Your task to perform on an android device: toggle improve location accuracy Image 0: 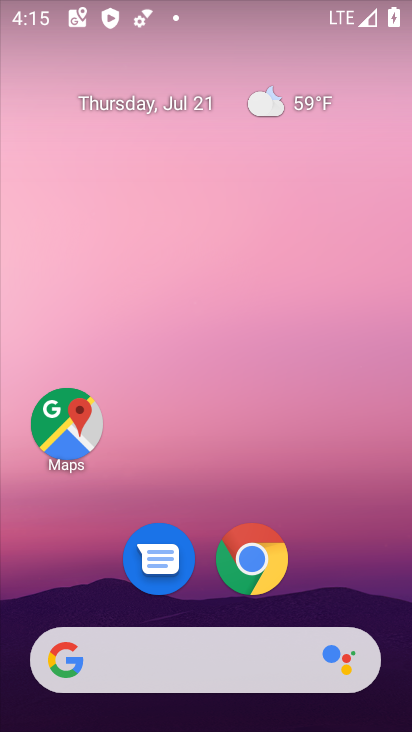
Step 0: drag from (103, 581) to (257, 13)
Your task to perform on an android device: toggle improve location accuracy Image 1: 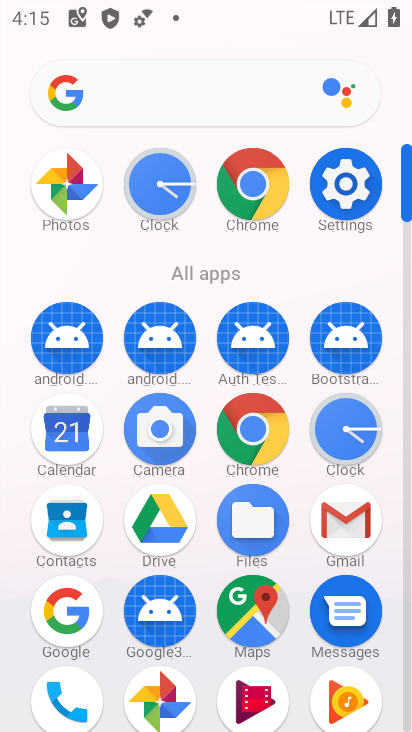
Step 1: click (335, 200)
Your task to perform on an android device: toggle improve location accuracy Image 2: 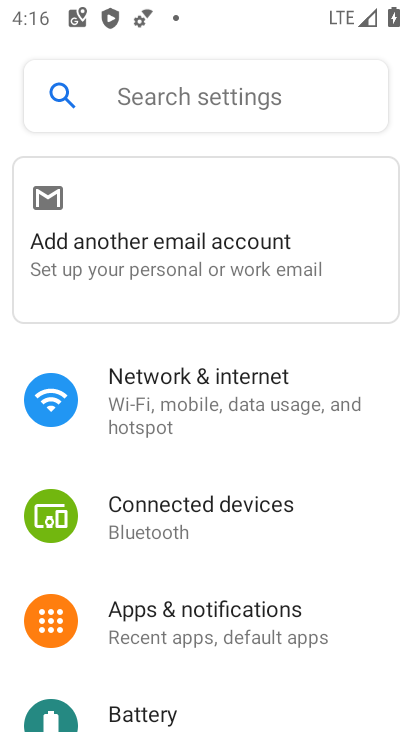
Step 2: drag from (196, 673) to (252, 43)
Your task to perform on an android device: toggle improve location accuracy Image 3: 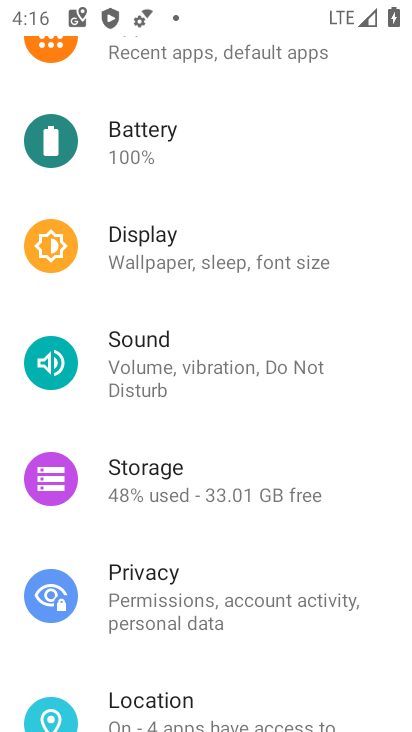
Step 3: click (156, 704)
Your task to perform on an android device: toggle improve location accuracy Image 4: 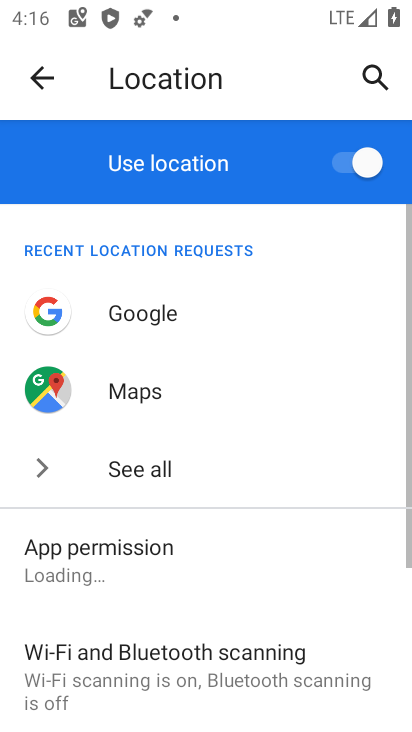
Step 4: drag from (188, 588) to (288, 121)
Your task to perform on an android device: toggle improve location accuracy Image 5: 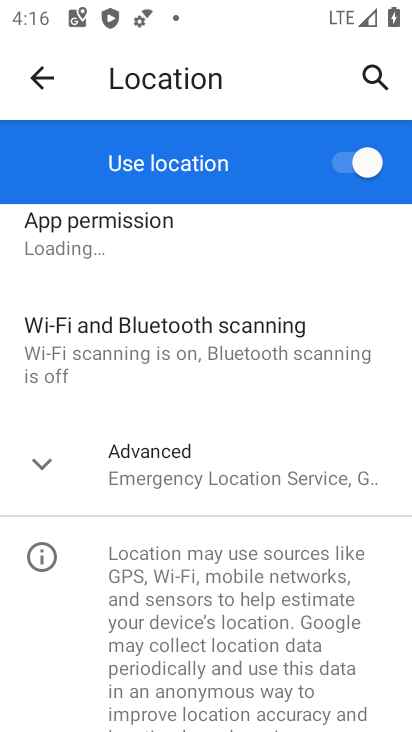
Step 5: click (169, 468)
Your task to perform on an android device: toggle improve location accuracy Image 6: 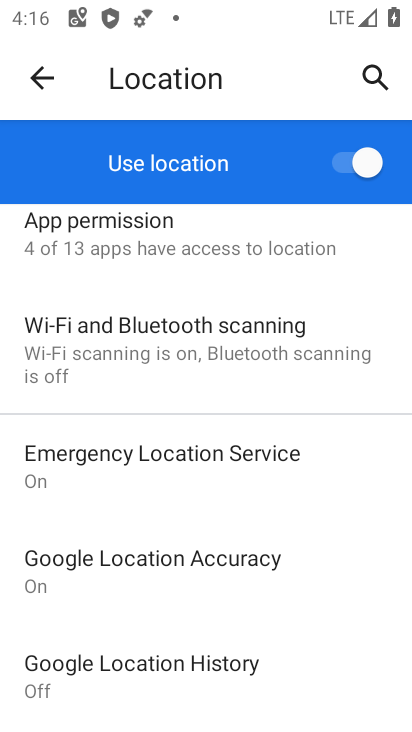
Step 6: click (177, 561)
Your task to perform on an android device: toggle improve location accuracy Image 7: 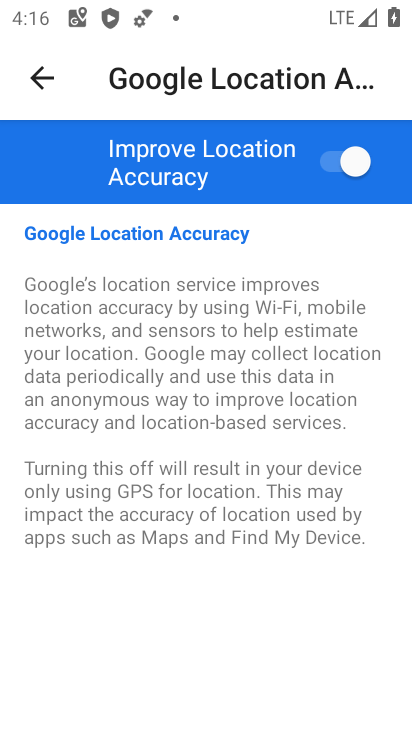
Step 7: click (353, 163)
Your task to perform on an android device: toggle improve location accuracy Image 8: 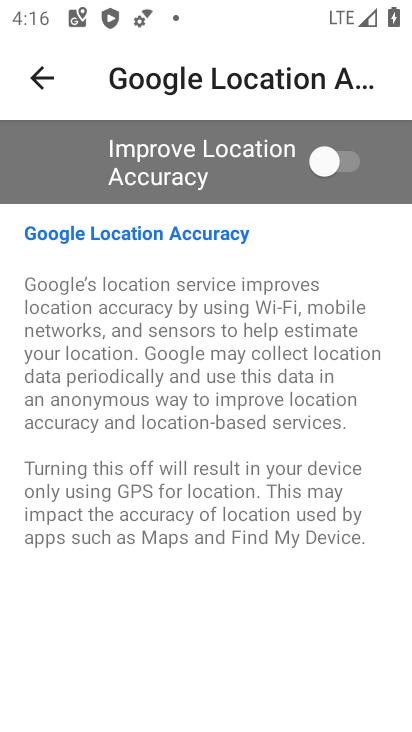
Step 8: task complete